Your task to perform on an android device: turn on priority inbox in the gmail app Image 0: 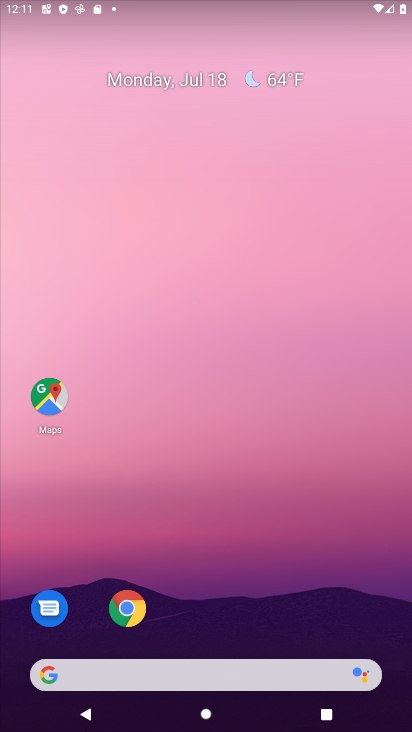
Step 0: drag from (379, 622) to (226, 44)
Your task to perform on an android device: turn on priority inbox in the gmail app Image 1: 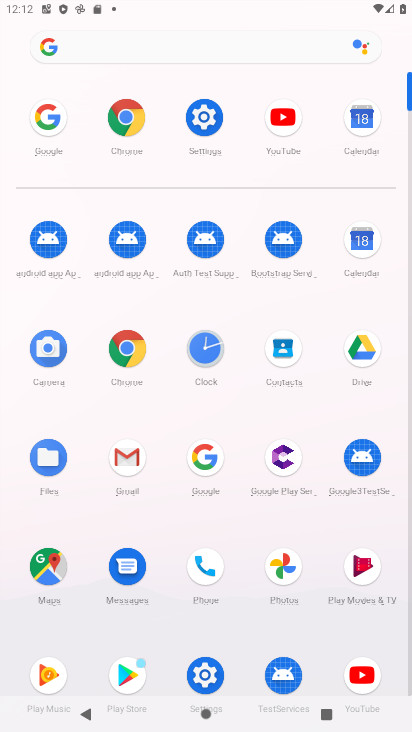
Step 1: click (124, 458)
Your task to perform on an android device: turn on priority inbox in the gmail app Image 2: 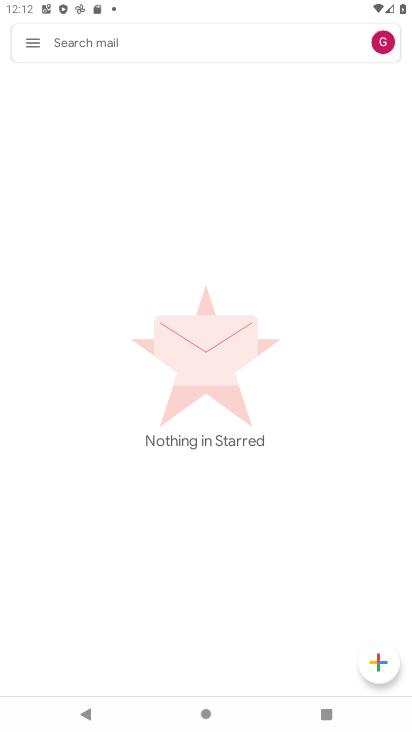
Step 2: click (28, 46)
Your task to perform on an android device: turn on priority inbox in the gmail app Image 3: 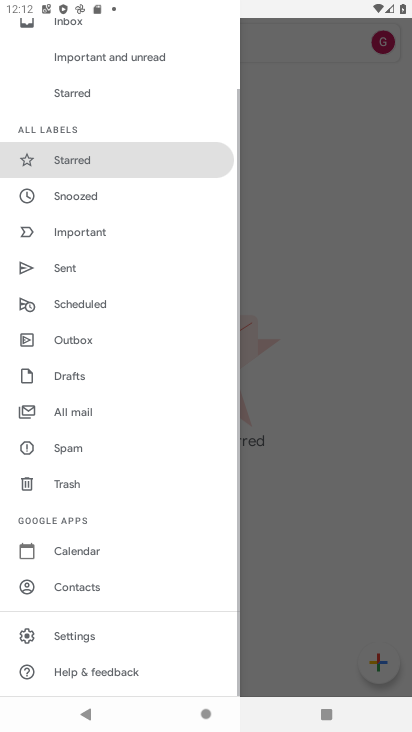
Step 3: click (67, 638)
Your task to perform on an android device: turn on priority inbox in the gmail app Image 4: 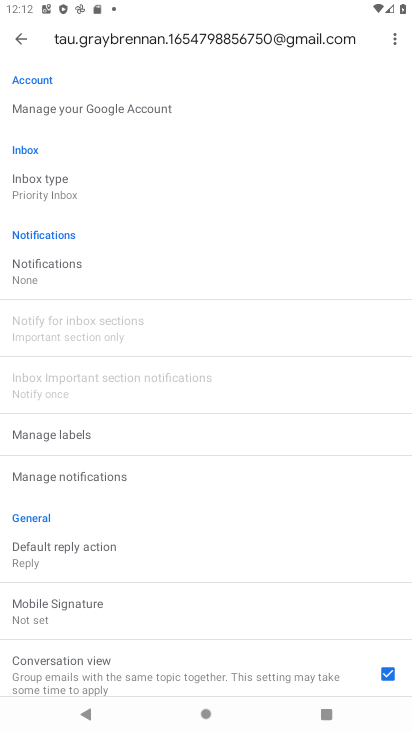
Step 4: click (41, 184)
Your task to perform on an android device: turn on priority inbox in the gmail app Image 5: 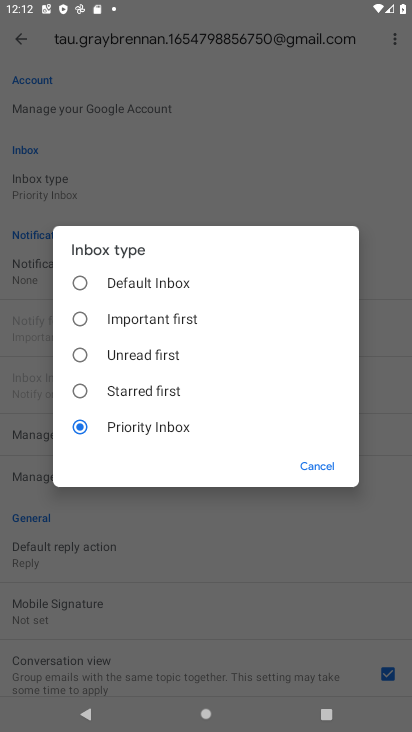
Step 5: task complete